Your task to perform on an android device: Open Wikipedia Image 0: 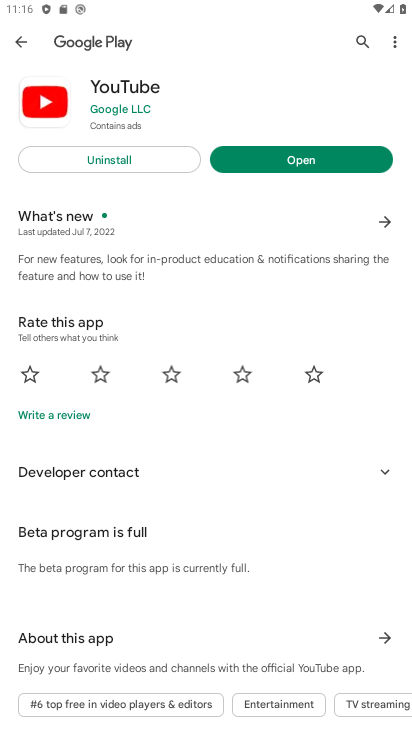
Step 0: press home button
Your task to perform on an android device: Open Wikipedia Image 1: 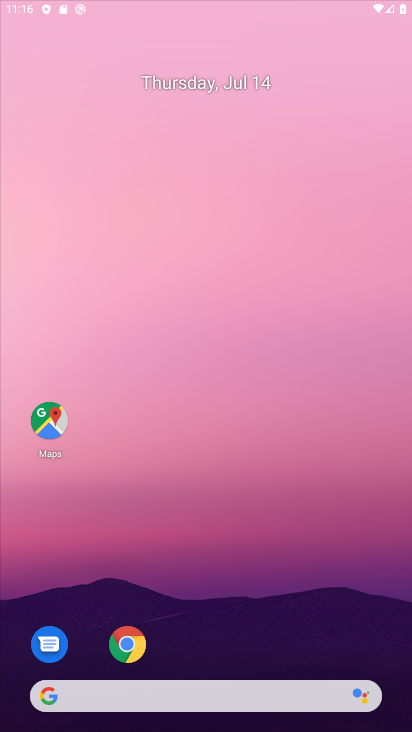
Step 1: drag from (371, 667) to (285, 55)
Your task to perform on an android device: Open Wikipedia Image 2: 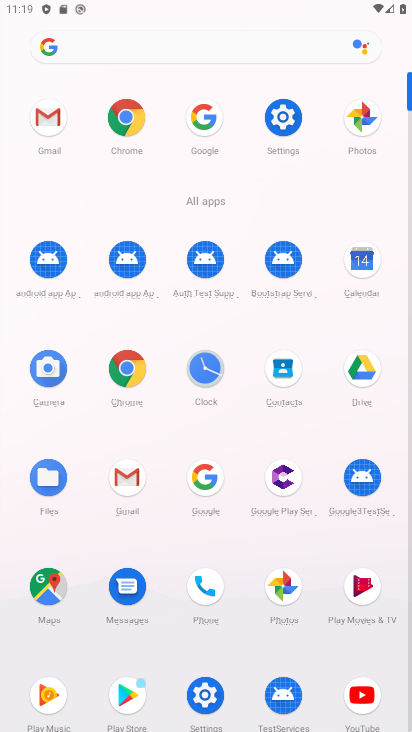
Step 2: click (201, 480)
Your task to perform on an android device: Open Wikipedia Image 3: 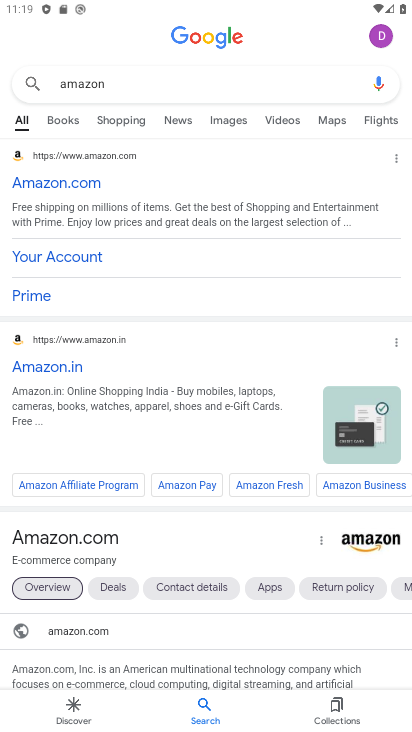
Step 3: press back button
Your task to perform on an android device: Open Wikipedia Image 4: 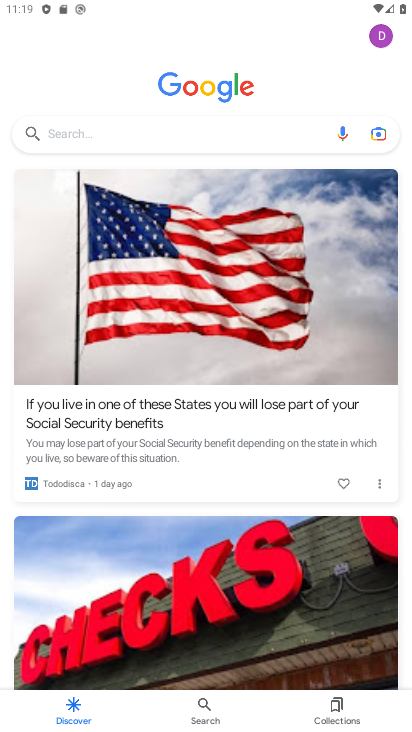
Step 4: click (144, 126)
Your task to perform on an android device: Open Wikipedia Image 5: 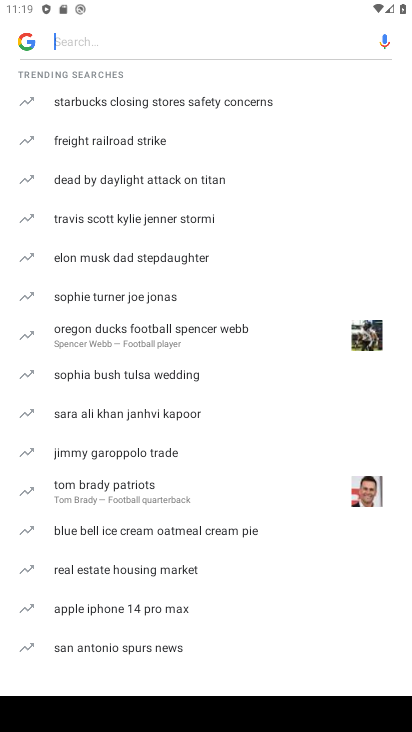
Step 5: type "Wikipedia"
Your task to perform on an android device: Open Wikipedia Image 6: 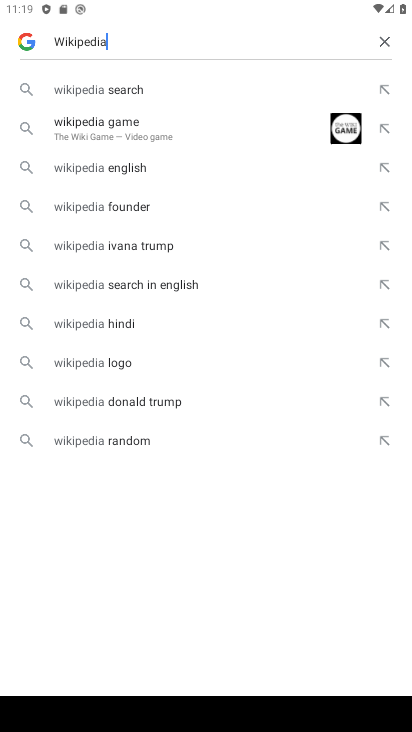
Step 6: click (112, 92)
Your task to perform on an android device: Open Wikipedia Image 7: 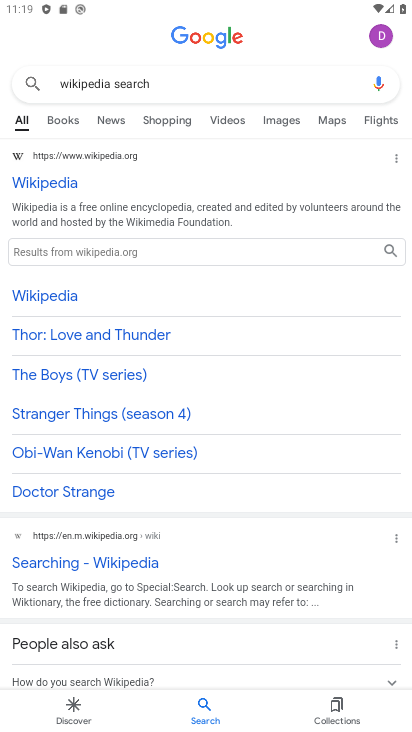
Step 7: task complete